Your task to perform on an android device: find which apps use the phone's location Image 0: 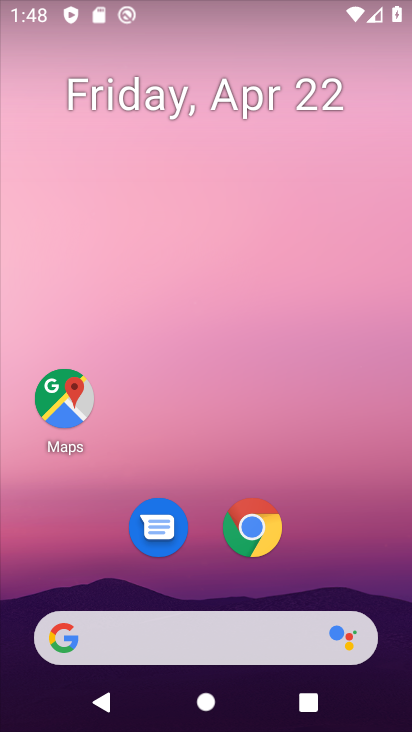
Step 0: drag from (316, 510) to (346, 125)
Your task to perform on an android device: find which apps use the phone's location Image 1: 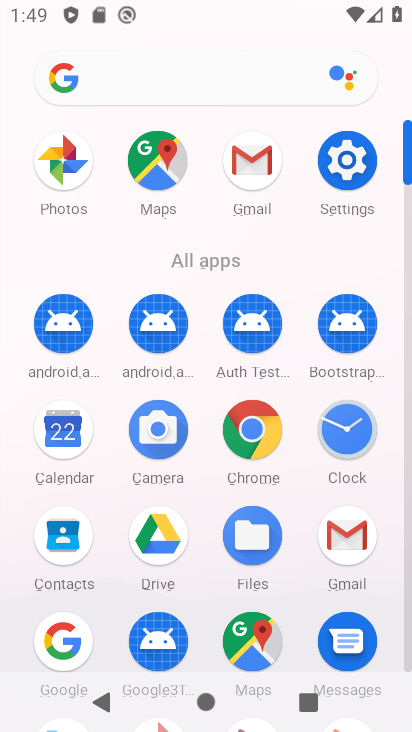
Step 1: drag from (308, 499) to (325, 99)
Your task to perform on an android device: find which apps use the phone's location Image 2: 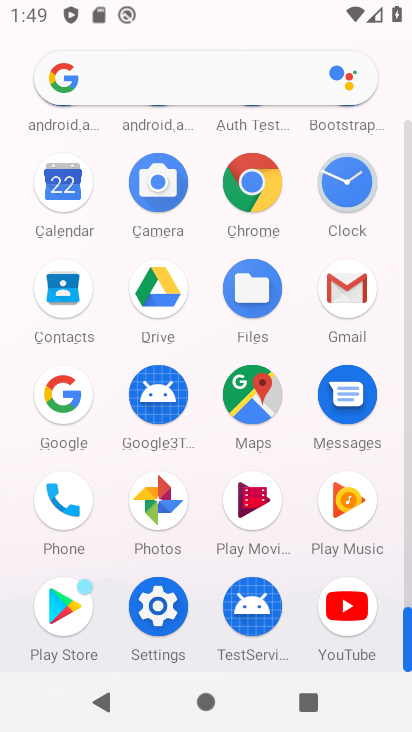
Step 2: click (61, 505)
Your task to perform on an android device: find which apps use the phone's location Image 3: 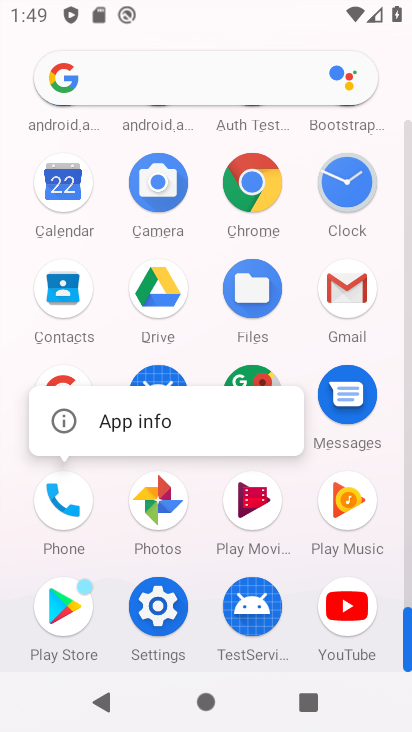
Step 3: click (180, 419)
Your task to perform on an android device: find which apps use the phone's location Image 4: 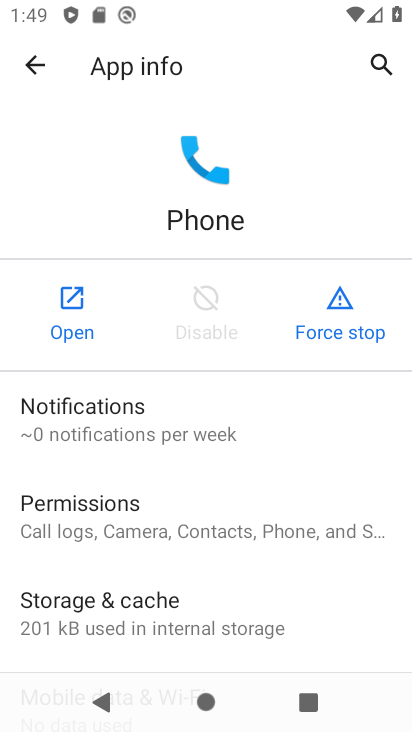
Step 4: drag from (319, 568) to (338, 281)
Your task to perform on an android device: find which apps use the phone's location Image 5: 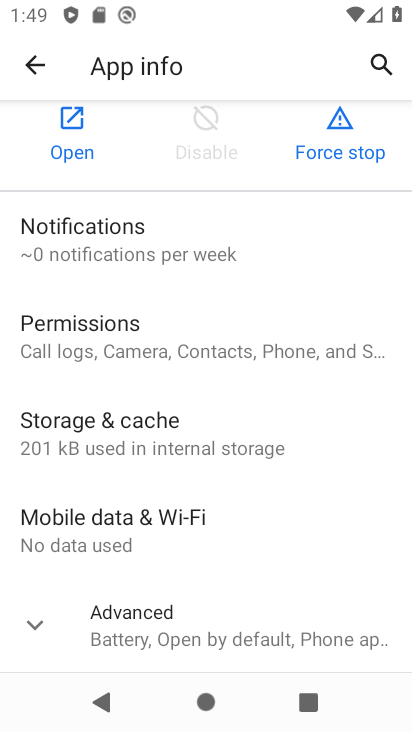
Step 5: click (115, 337)
Your task to perform on an android device: find which apps use the phone's location Image 6: 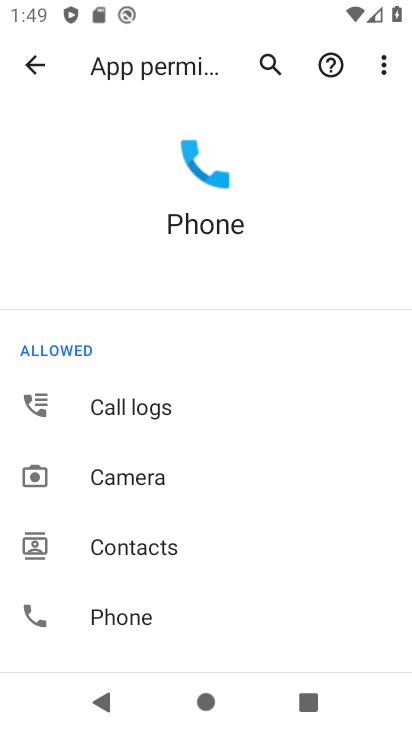
Step 6: drag from (295, 588) to (309, 305)
Your task to perform on an android device: find which apps use the phone's location Image 7: 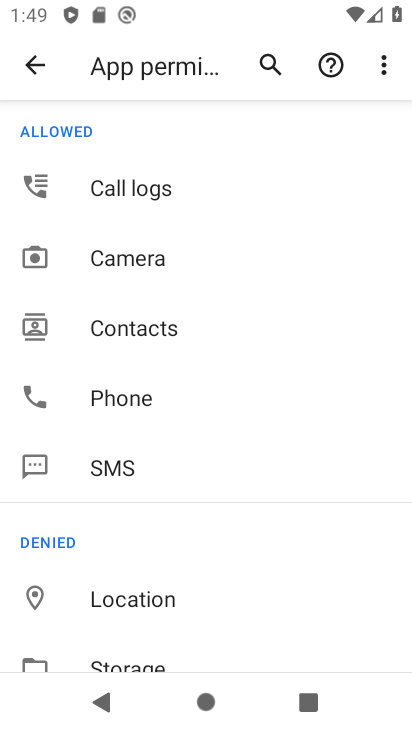
Step 7: click (147, 594)
Your task to perform on an android device: find which apps use the phone's location Image 8: 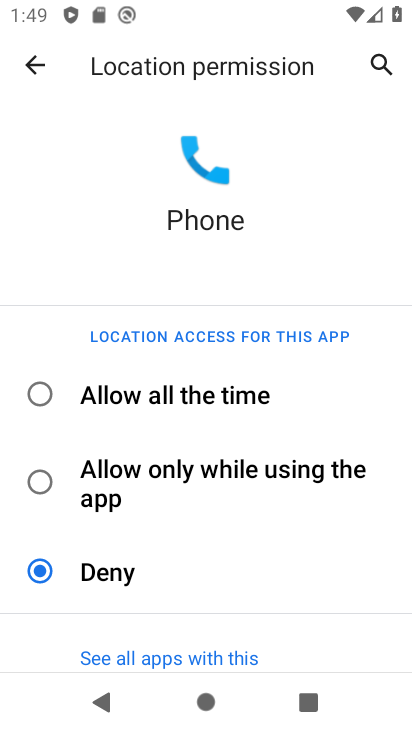
Step 8: drag from (215, 511) to (252, 204)
Your task to perform on an android device: find which apps use the phone's location Image 9: 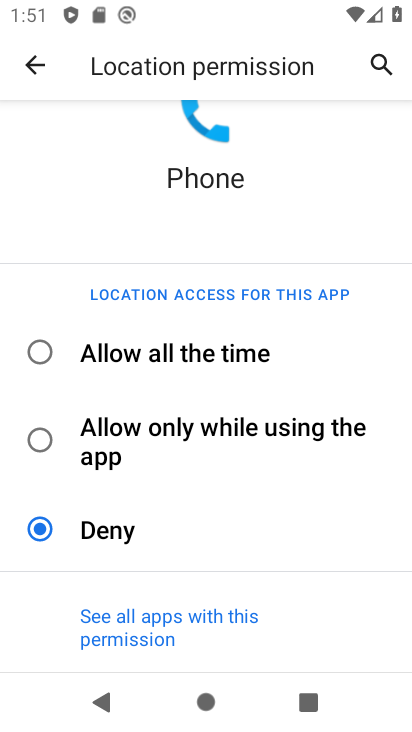
Step 9: drag from (242, 539) to (277, 0)
Your task to perform on an android device: find which apps use the phone's location Image 10: 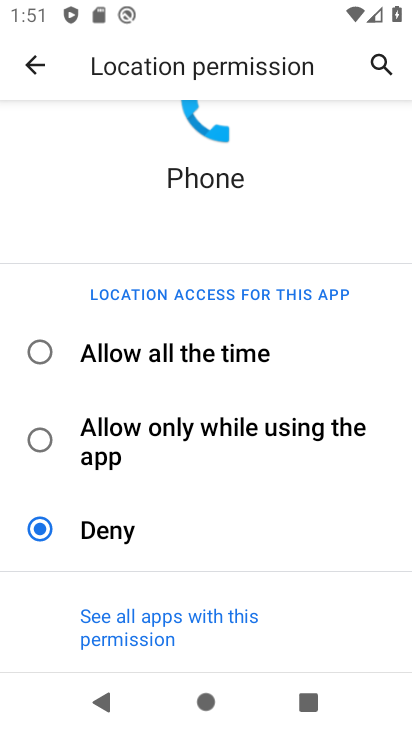
Step 10: click (302, 545)
Your task to perform on an android device: find which apps use the phone's location Image 11: 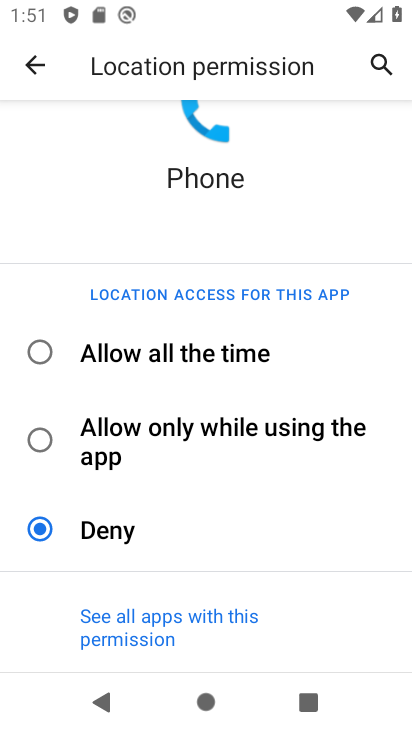
Step 11: task complete